Your task to perform on an android device: See recent photos Image 0: 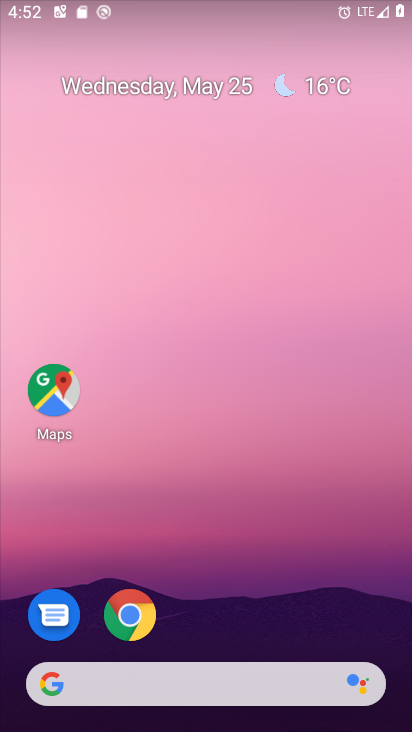
Step 0: drag from (270, 449) to (210, 10)
Your task to perform on an android device: See recent photos Image 1: 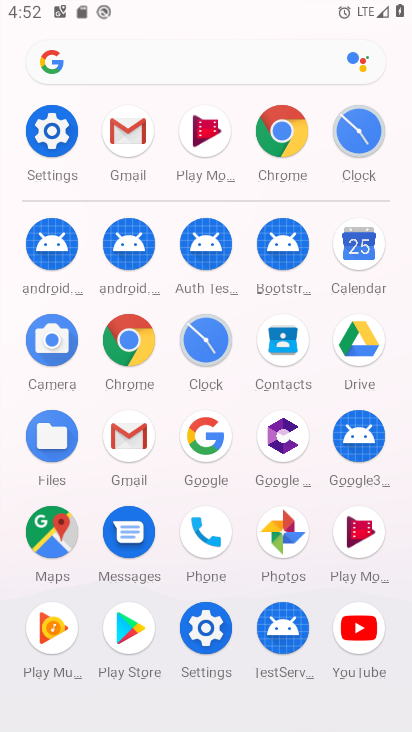
Step 1: click (297, 541)
Your task to perform on an android device: See recent photos Image 2: 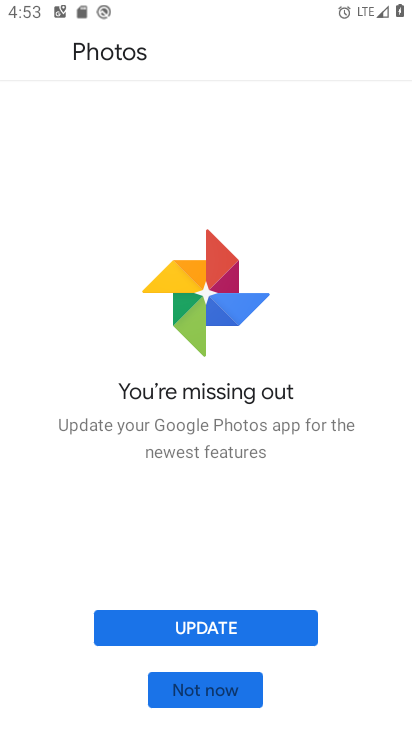
Step 2: click (243, 626)
Your task to perform on an android device: See recent photos Image 3: 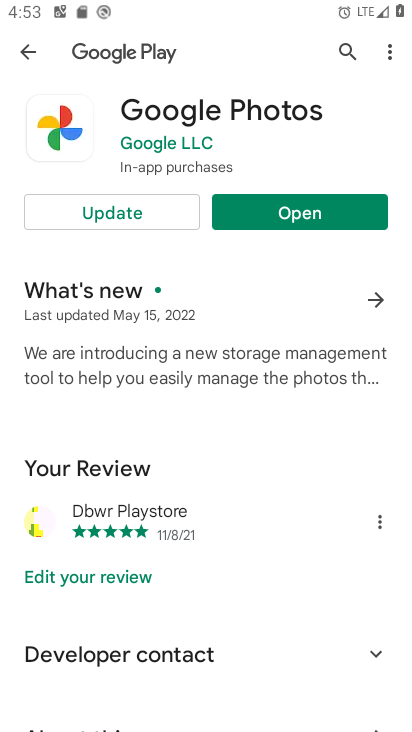
Step 3: click (133, 206)
Your task to perform on an android device: See recent photos Image 4: 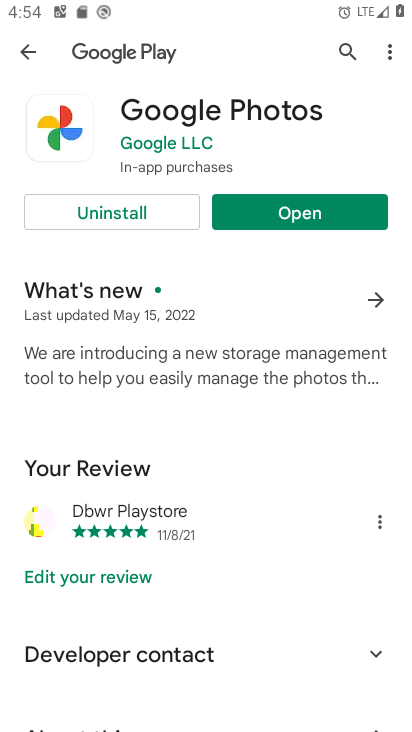
Step 4: click (311, 218)
Your task to perform on an android device: See recent photos Image 5: 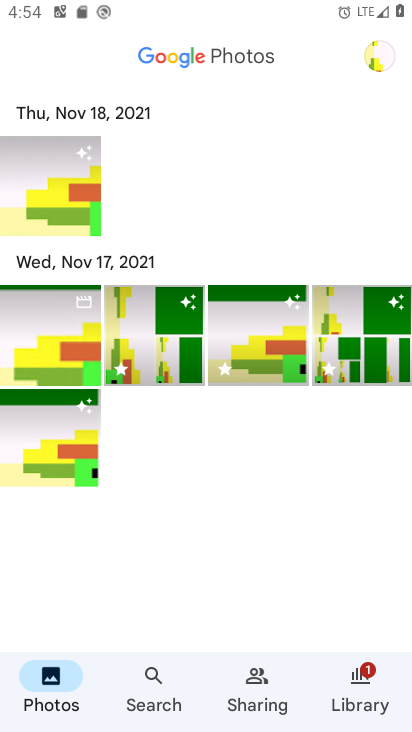
Step 5: task complete